Your task to perform on an android device: Open accessibility settings Image 0: 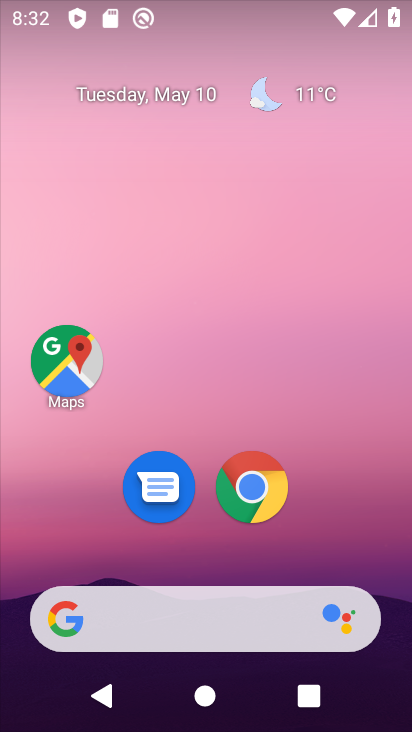
Step 0: drag from (187, 538) to (342, 34)
Your task to perform on an android device: Open accessibility settings Image 1: 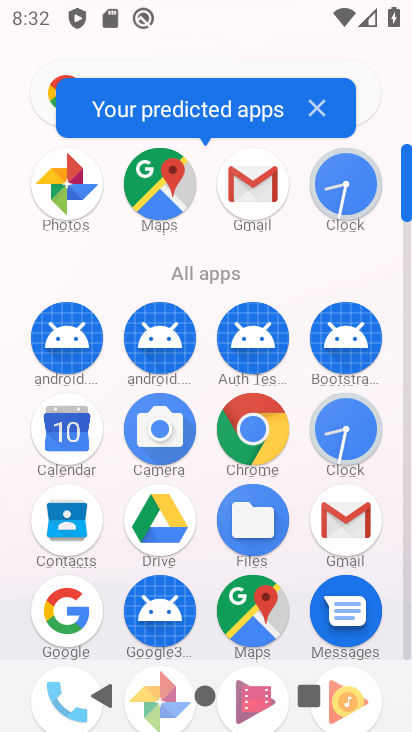
Step 1: drag from (186, 631) to (315, 273)
Your task to perform on an android device: Open accessibility settings Image 2: 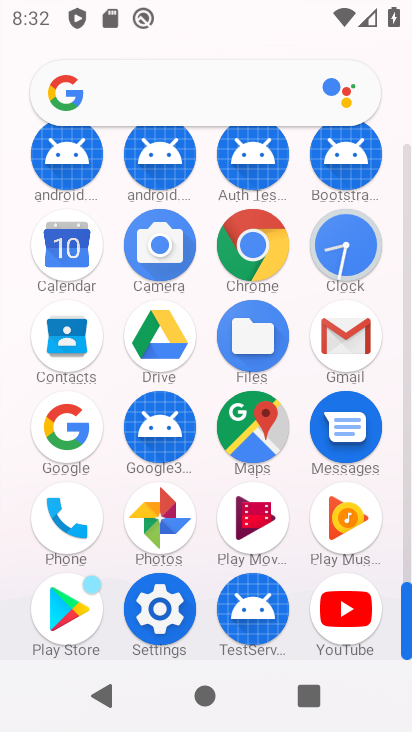
Step 2: click (155, 616)
Your task to perform on an android device: Open accessibility settings Image 3: 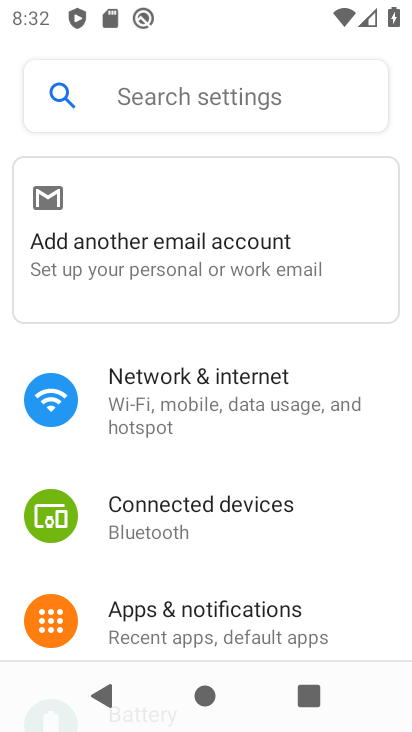
Step 3: drag from (195, 625) to (309, 249)
Your task to perform on an android device: Open accessibility settings Image 4: 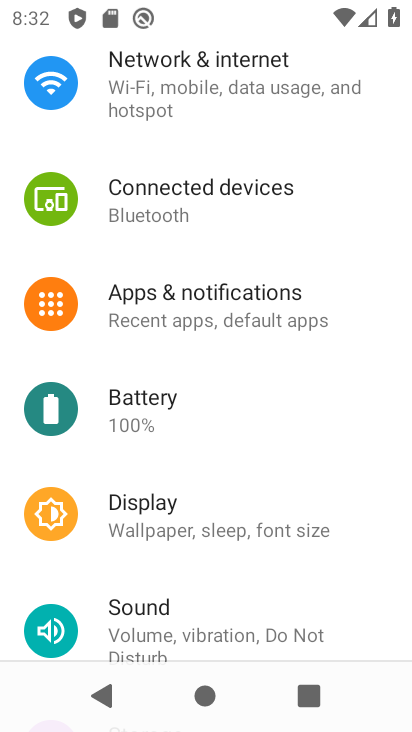
Step 4: drag from (215, 582) to (289, 197)
Your task to perform on an android device: Open accessibility settings Image 5: 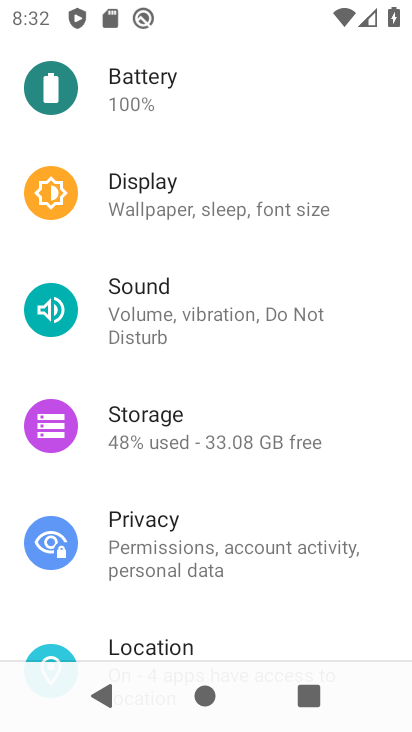
Step 5: drag from (188, 599) to (275, 192)
Your task to perform on an android device: Open accessibility settings Image 6: 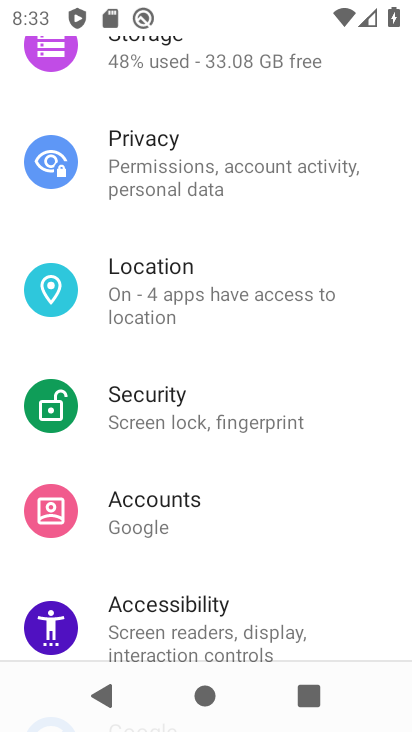
Step 6: click (189, 602)
Your task to perform on an android device: Open accessibility settings Image 7: 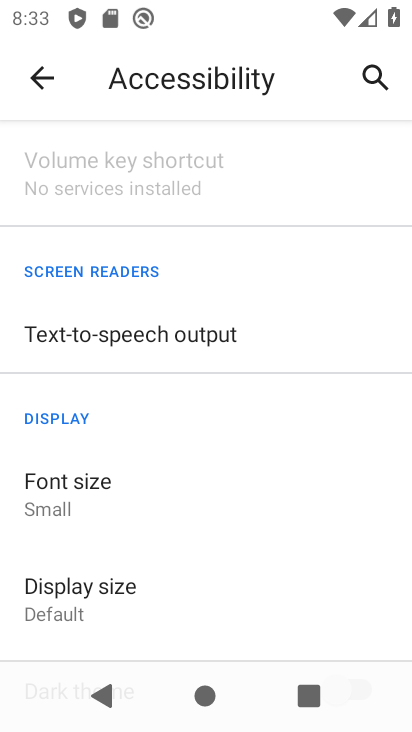
Step 7: task complete